Your task to perform on an android device: turn pop-ups on in chrome Image 0: 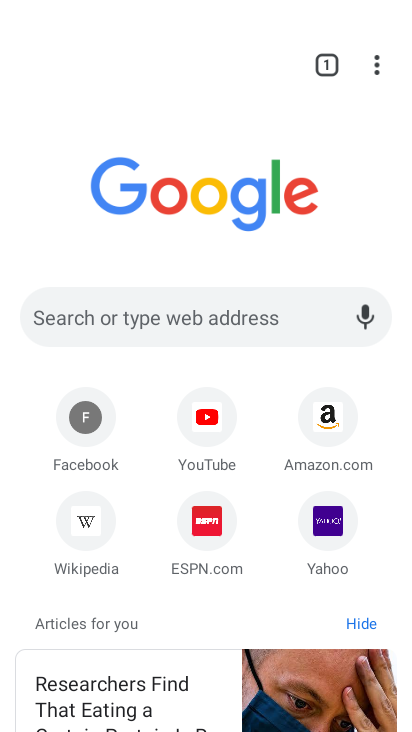
Step 0: press home button
Your task to perform on an android device: turn pop-ups on in chrome Image 1: 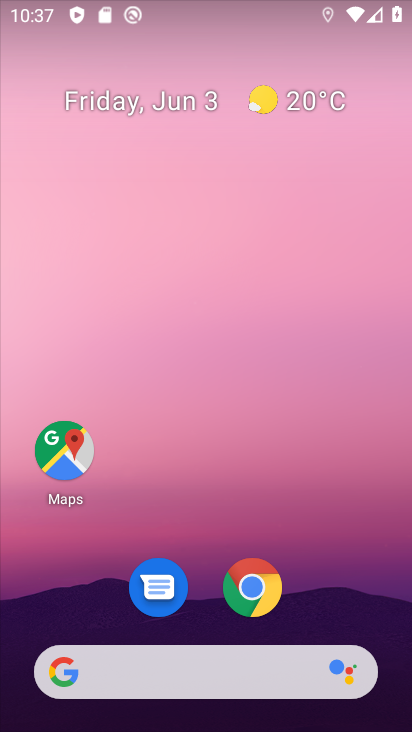
Step 1: click (244, 595)
Your task to perform on an android device: turn pop-ups on in chrome Image 2: 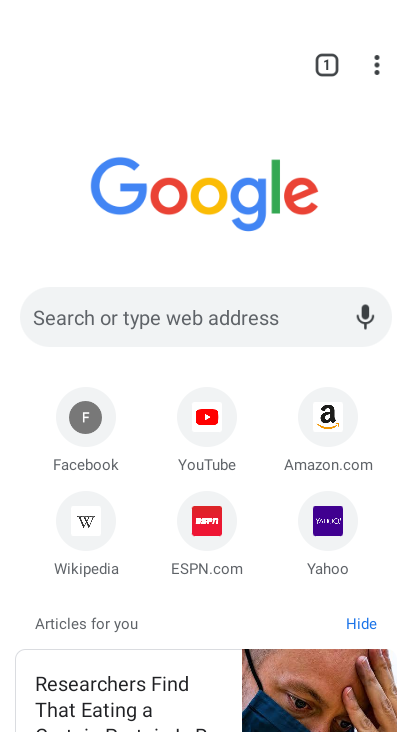
Step 2: click (364, 60)
Your task to perform on an android device: turn pop-ups on in chrome Image 3: 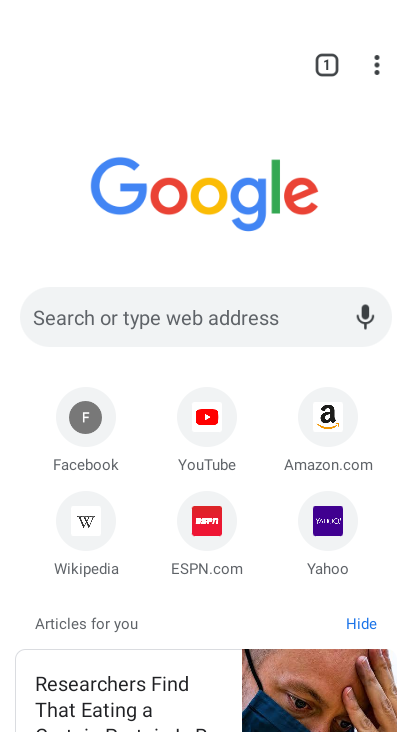
Step 3: click (370, 74)
Your task to perform on an android device: turn pop-ups on in chrome Image 4: 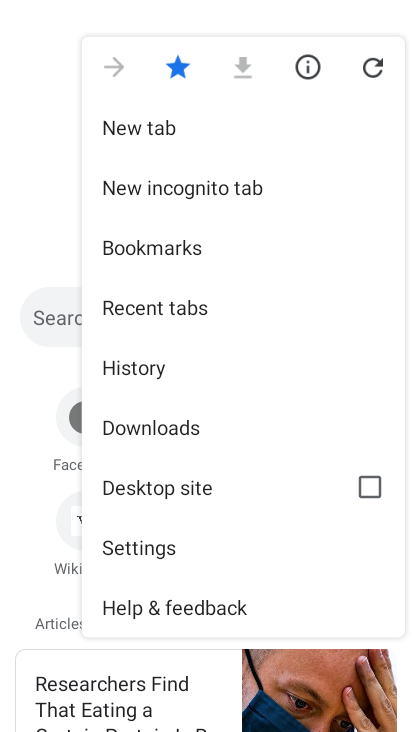
Step 4: click (204, 551)
Your task to perform on an android device: turn pop-ups on in chrome Image 5: 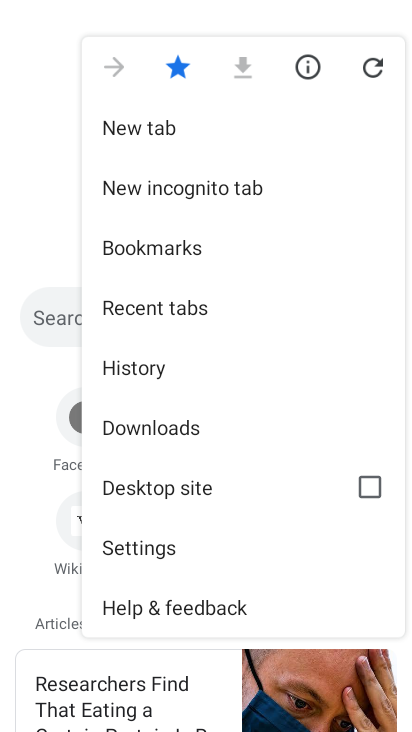
Step 5: click (177, 556)
Your task to perform on an android device: turn pop-ups on in chrome Image 6: 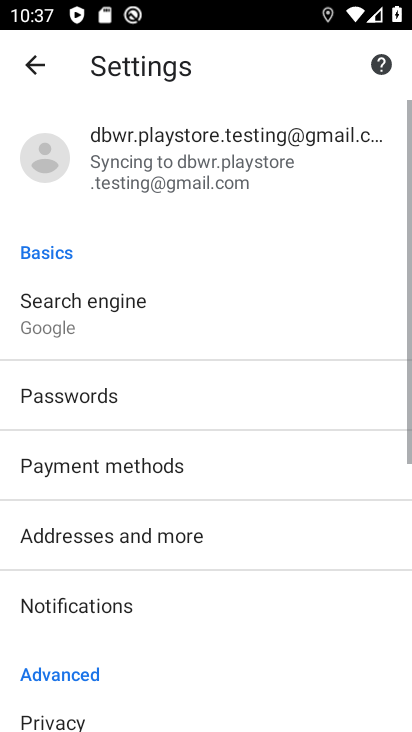
Step 6: drag from (190, 552) to (209, 137)
Your task to perform on an android device: turn pop-ups on in chrome Image 7: 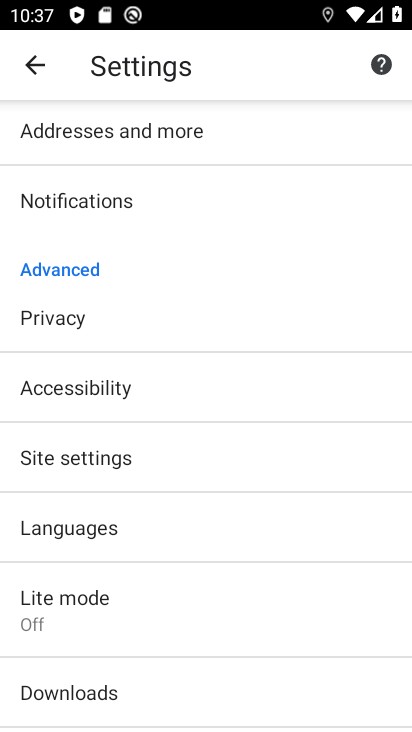
Step 7: click (139, 457)
Your task to perform on an android device: turn pop-ups on in chrome Image 8: 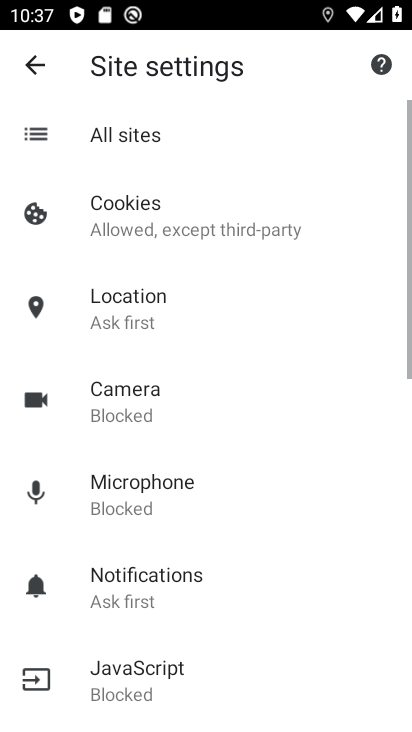
Step 8: drag from (208, 498) to (201, 190)
Your task to perform on an android device: turn pop-ups on in chrome Image 9: 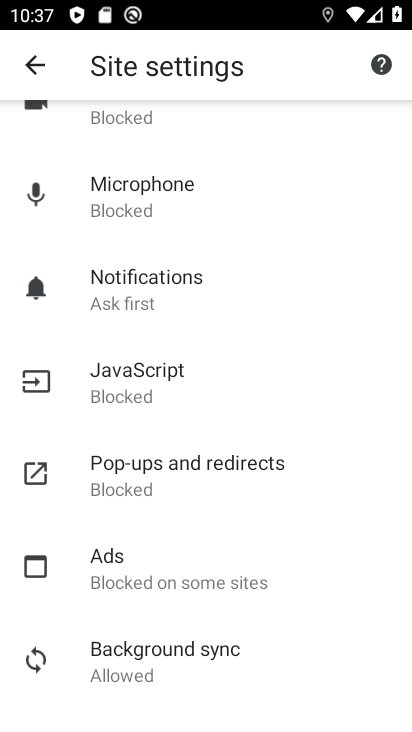
Step 9: click (194, 514)
Your task to perform on an android device: turn pop-ups on in chrome Image 10: 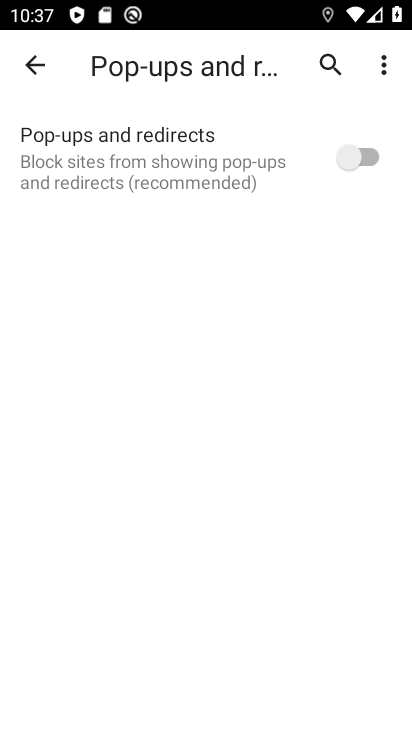
Step 10: click (354, 154)
Your task to perform on an android device: turn pop-ups on in chrome Image 11: 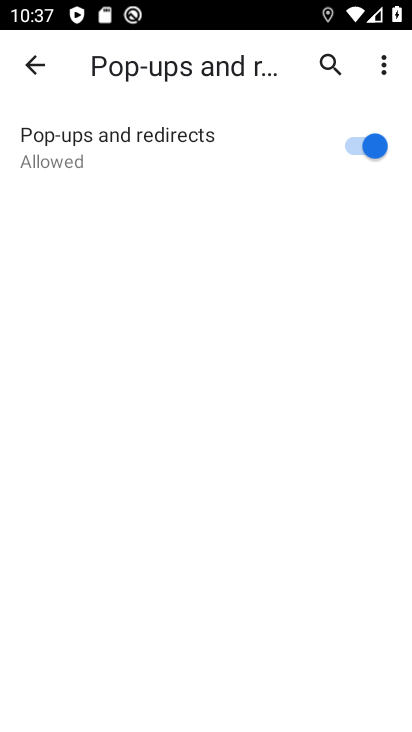
Step 11: task complete